Your task to perform on an android device: Find coffee shops on Maps Image 0: 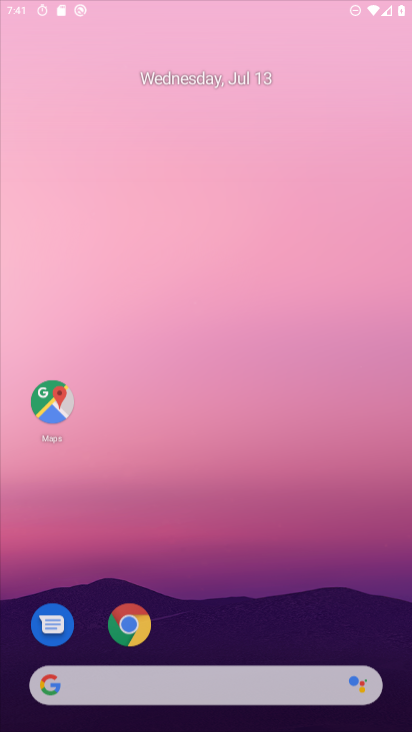
Step 0: drag from (298, 274) to (263, 33)
Your task to perform on an android device: Find coffee shops on Maps Image 1: 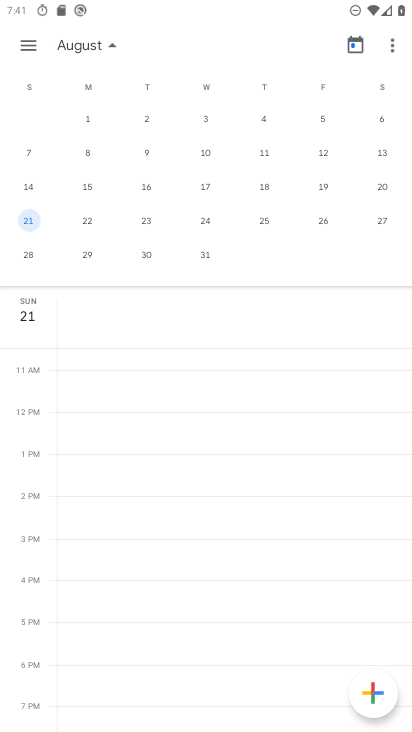
Step 1: press home button
Your task to perform on an android device: Find coffee shops on Maps Image 2: 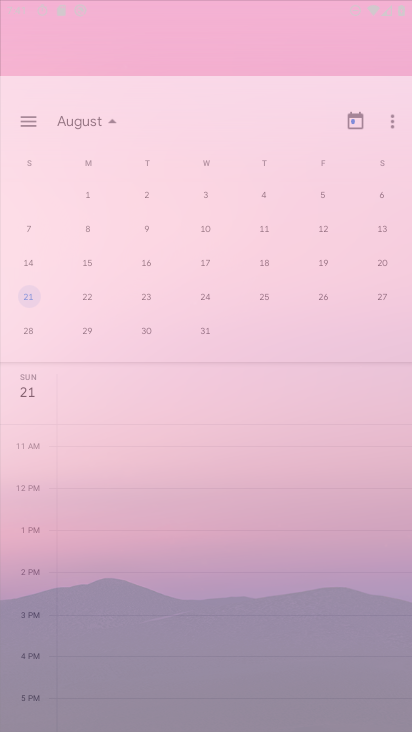
Step 2: drag from (327, 682) to (221, 37)
Your task to perform on an android device: Find coffee shops on Maps Image 3: 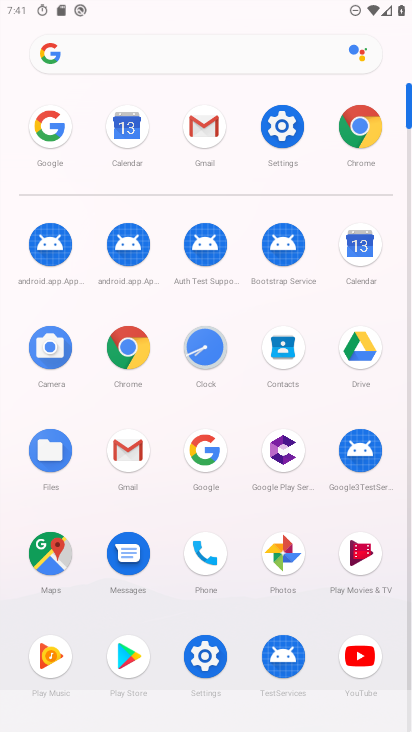
Step 3: click (34, 571)
Your task to perform on an android device: Find coffee shops on Maps Image 4: 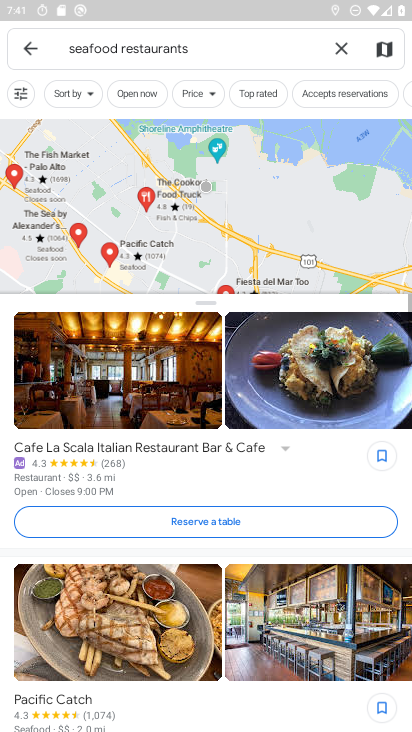
Step 4: click (340, 38)
Your task to perform on an android device: Find coffee shops on Maps Image 5: 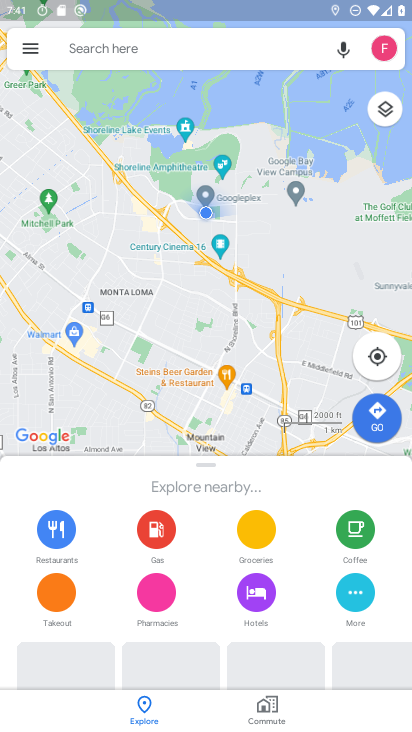
Step 5: click (105, 43)
Your task to perform on an android device: Find coffee shops on Maps Image 6: 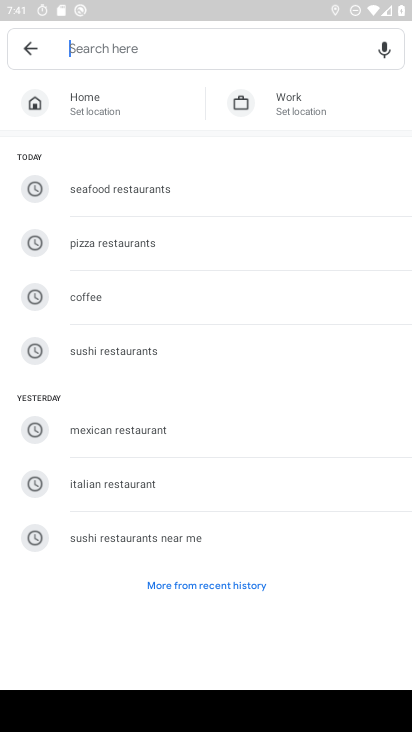
Step 6: type "coffee shops"
Your task to perform on an android device: Find coffee shops on Maps Image 7: 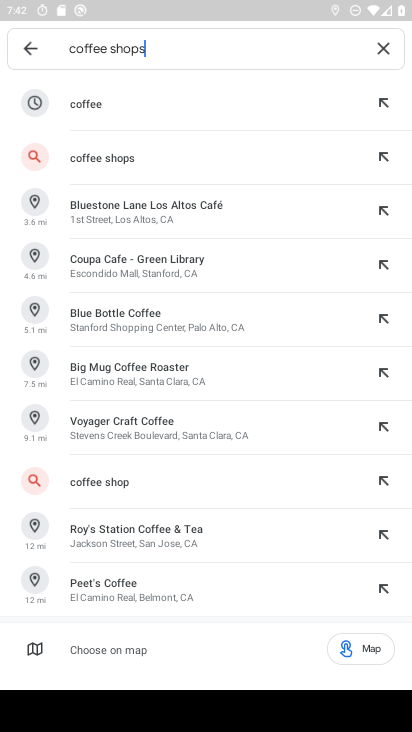
Step 7: click (84, 163)
Your task to perform on an android device: Find coffee shops on Maps Image 8: 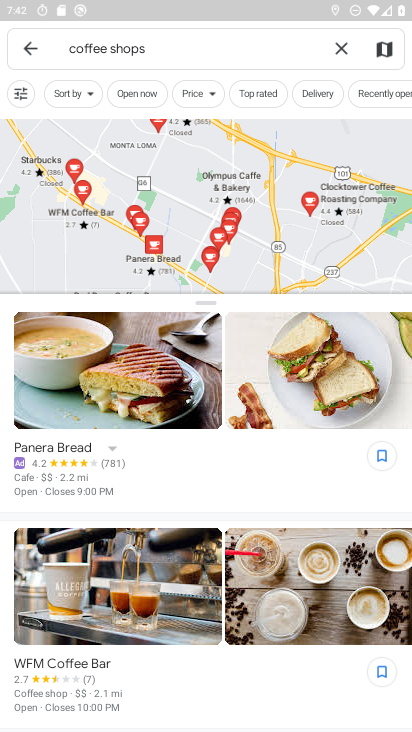
Step 8: task complete